Your task to perform on an android device: open a bookmark in the chrome app Image 0: 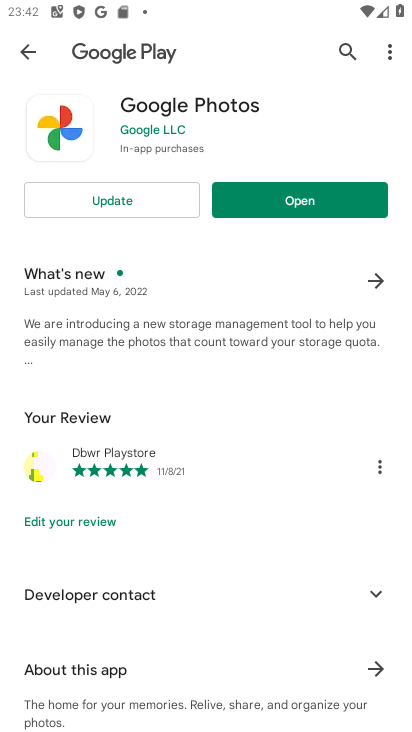
Step 0: click (25, 32)
Your task to perform on an android device: open a bookmark in the chrome app Image 1: 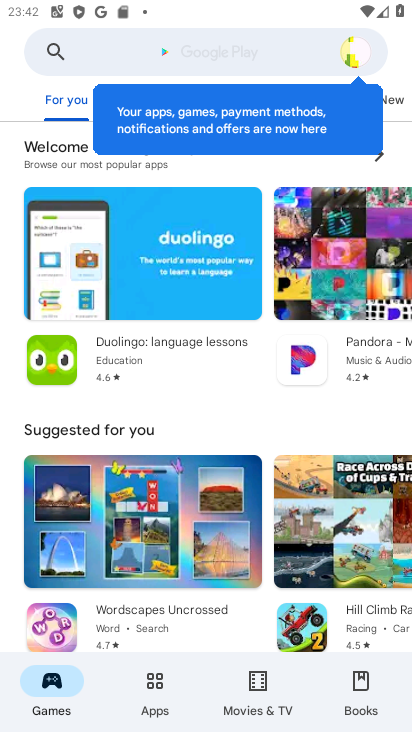
Step 1: task complete